Your task to perform on an android device: change the clock display to analog Image 0: 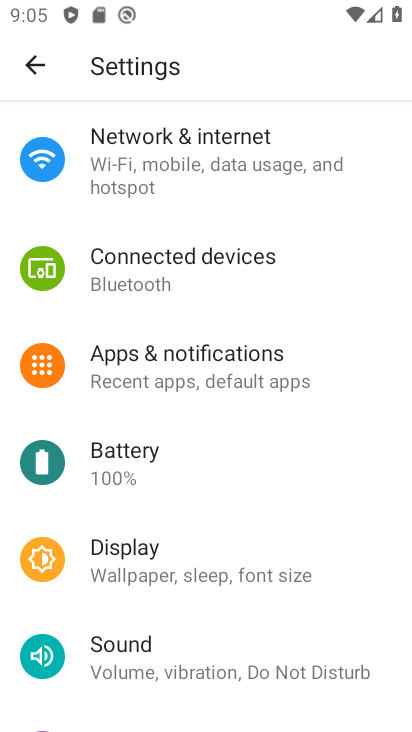
Step 0: press home button
Your task to perform on an android device: change the clock display to analog Image 1: 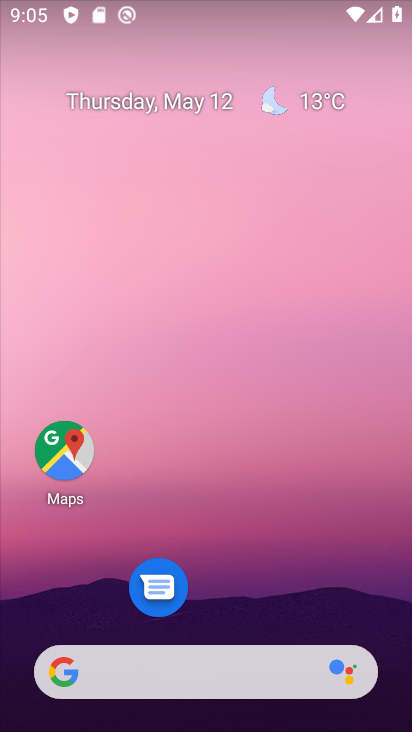
Step 1: drag from (215, 634) to (152, 12)
Your task to perform on an android device: change the clock display to analog Image 2: 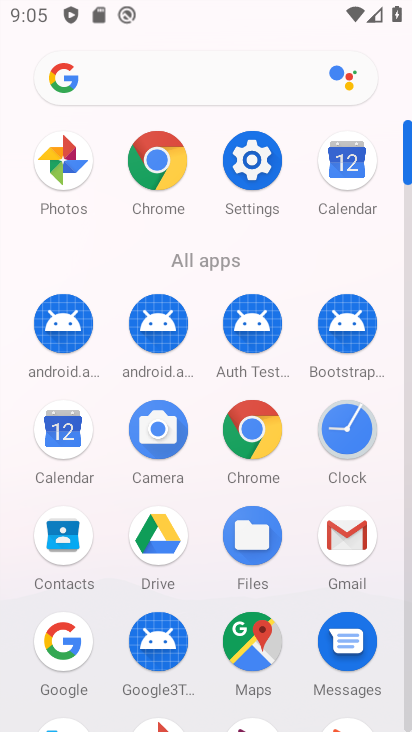
Step 2: click (348, 429)
Your task to perform on an android device: change the clock display to analog Image 3: 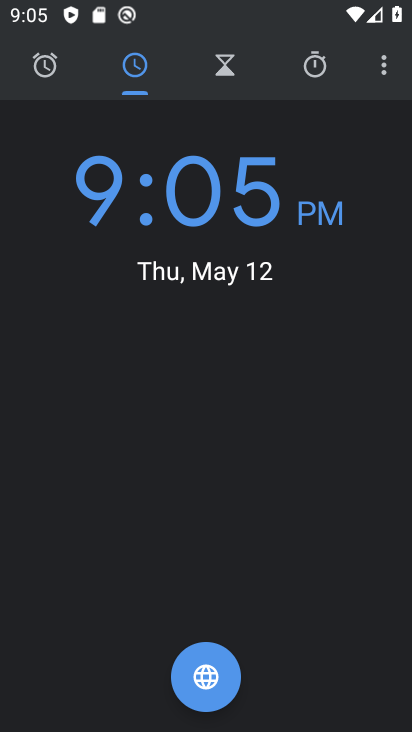
Step 3: click (376, 64)
Your task to perform on an android device: change the clock display to analog Image 4: 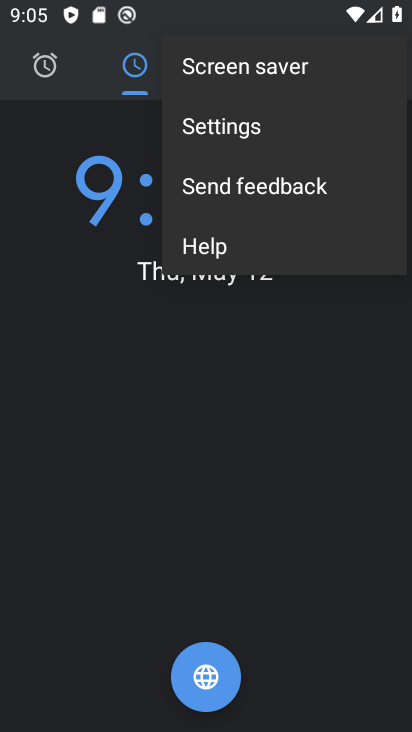
Step 4: click (239, 131)
Your task to perform on an android device: change the clock display to analog Image 5: 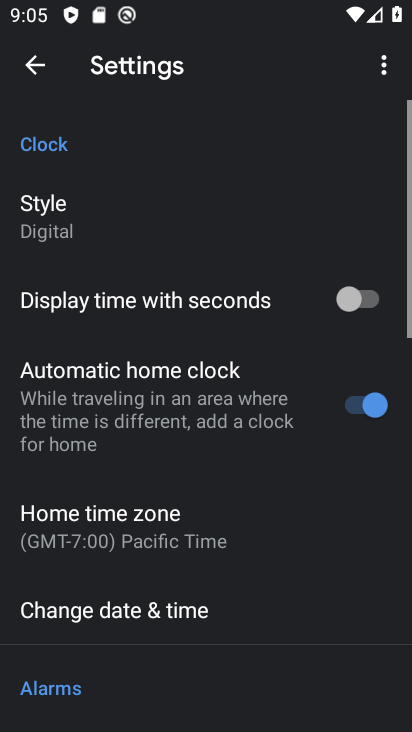
Step 5: click (70, 218)
Your task to perform on an android device: change the clock display to analog Image 6: 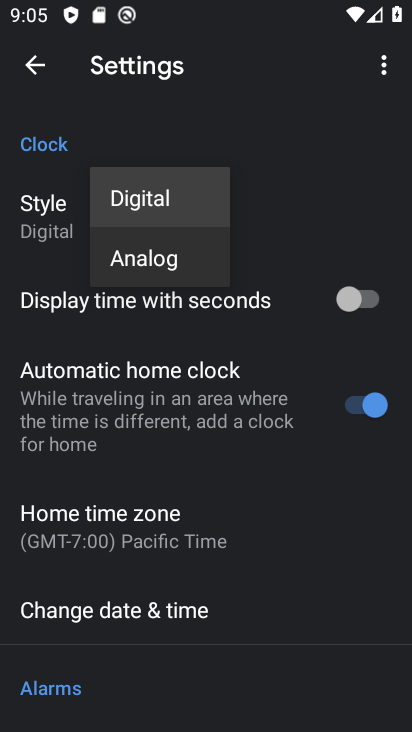
Step 6: click (159, 262)
Your task to perform on an android device: change the clock display to analog Image 7: 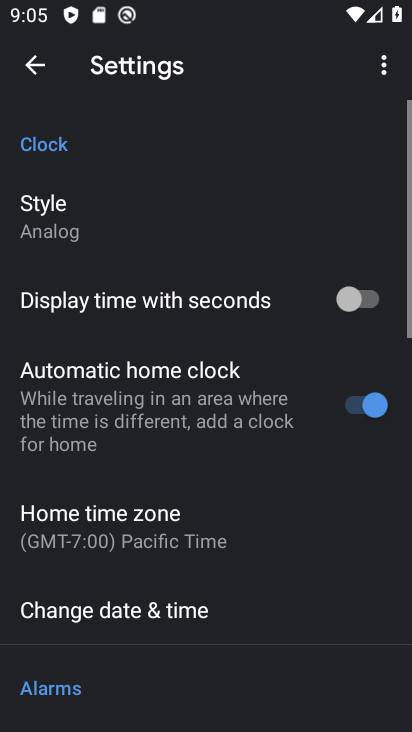
Step 7: task complete